Your task to perform on an android device: Find coffee shops on Maps Image 0: 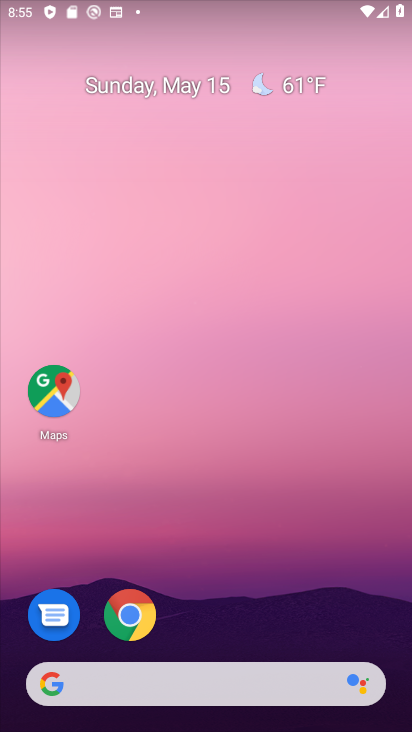
Step 0: drag from (214, 368) to (196, 0)
Your task to perform on an android device: Find coffee shops on Maps Image 1: 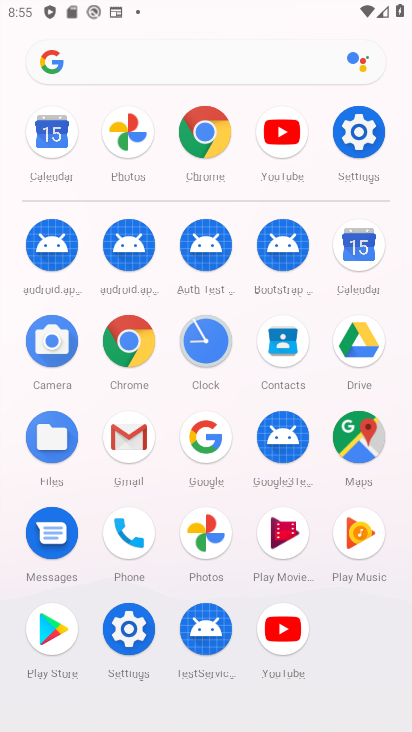
Step 1: click (359, 430)
Your task to perform on an android device: Find coffee shops on Maps Image 2: 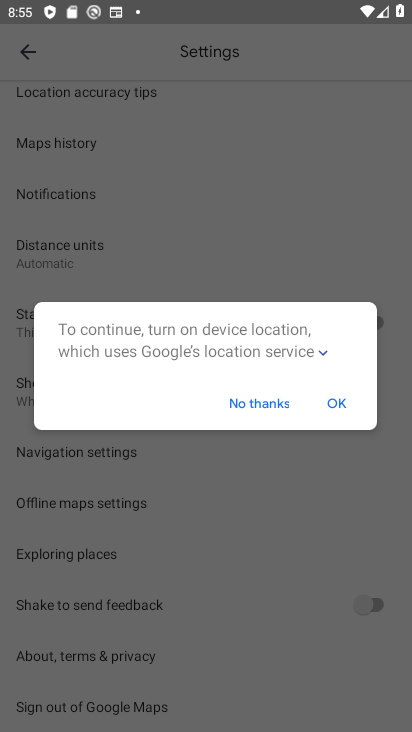
Step 2: click (31, 38)
Your task to perform on an android device: Find coffee shops on Maps Image 3: 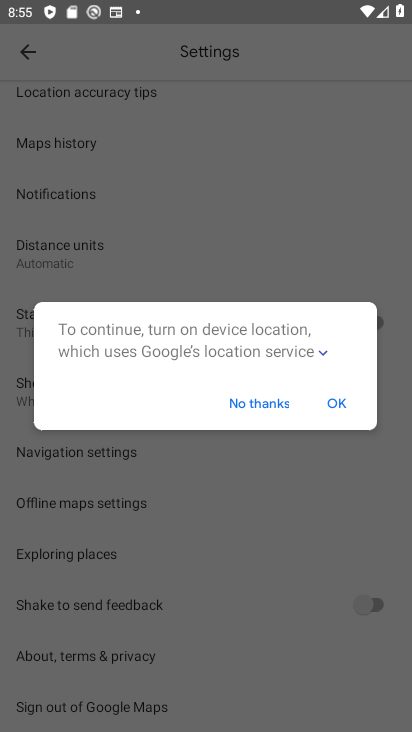
Step 3: click (333, 396)
Your task to perform on an android device: Find coffee shops on Maps Image 4: 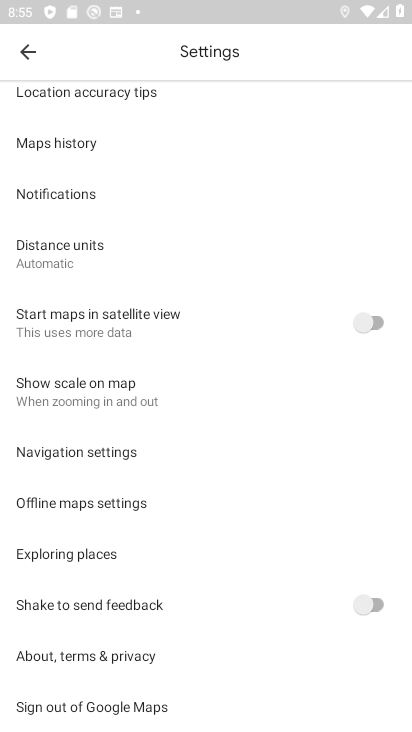
Step 4: click (24, 53)
Your task to perform on an android device: Find coffee shops on Maps Image 5: 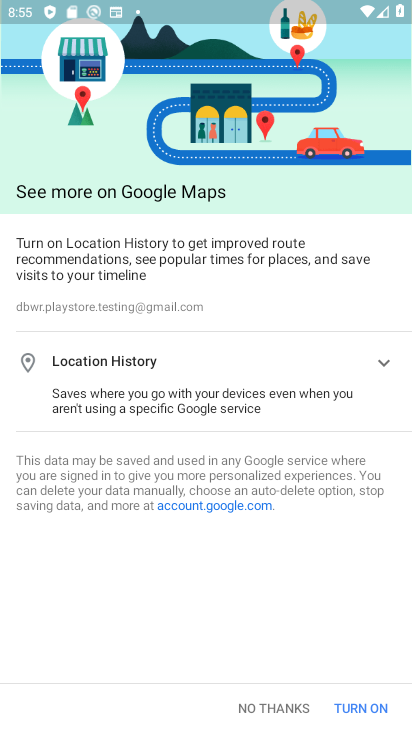
Step 5: click (358, 710)
Your task to perform on an android device: Find coffee shops on Maps Image 6: 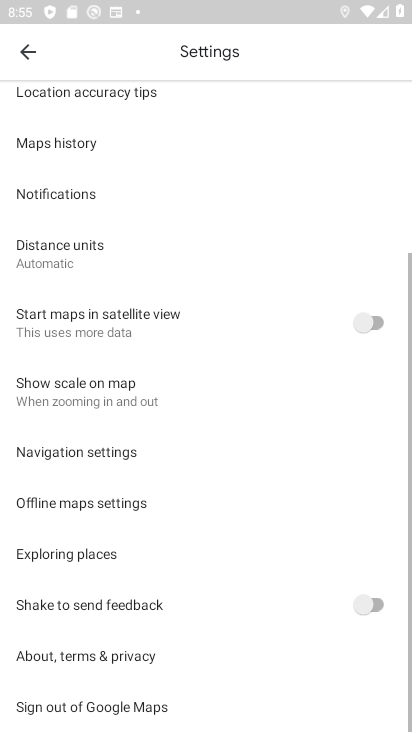
Step 6: click (27, 58)
Your task to perform on an android device: Find coffee shops on Maps Image 7: 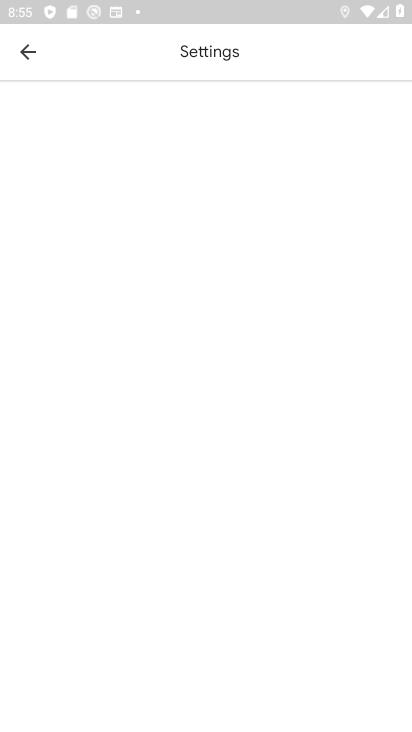
Step 7: click (27, 58)
Your task to perform on an android device: Find coffee shops on Maps Image 8: 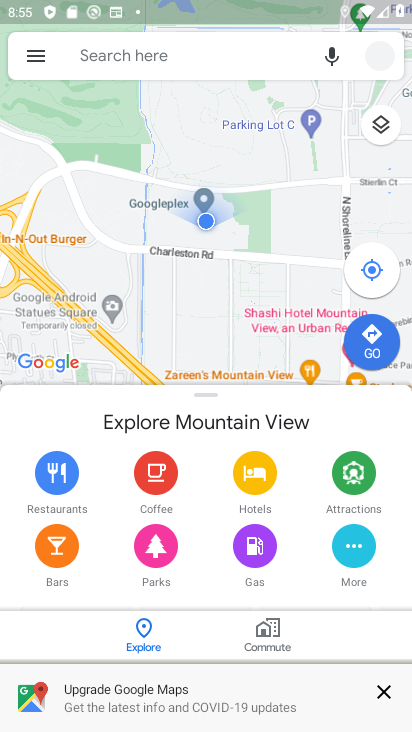
Step 8: click (185, 53)
Your task to perform on an android device: Find coffee shops on Maps Image 9: 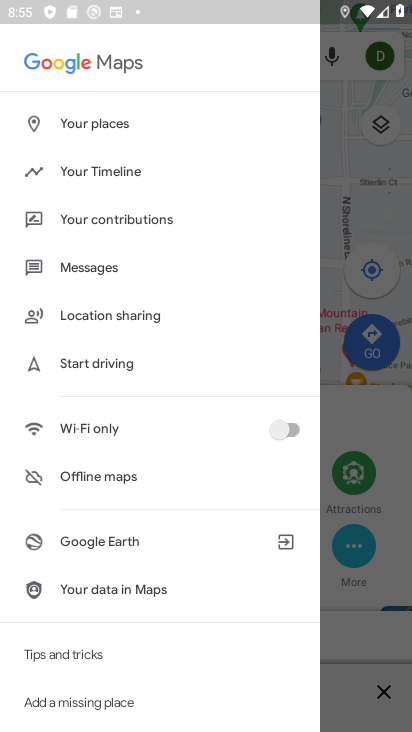
Step 9: click (341, 124)
Your task to perform on an android device: Find coffee shops on Maps Image 10: 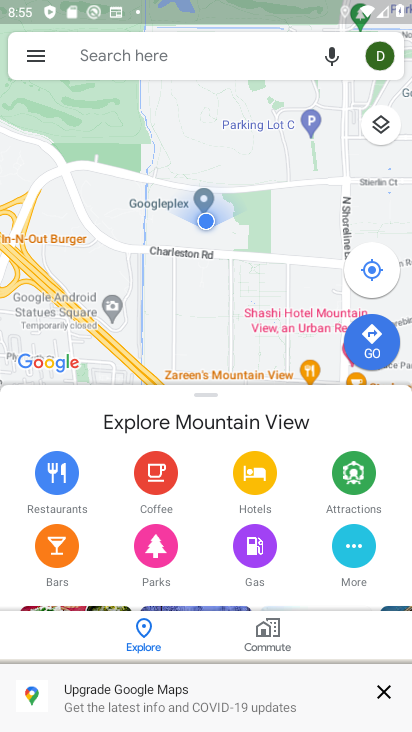
Step 10: click (198, 53)
Your task to perform on an android device: Find coffee shops on Maps Image 11: 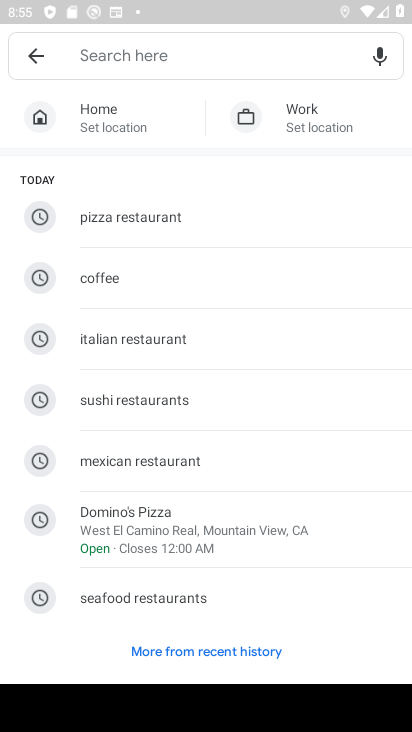
Step 11: click (154, 283)
Your task to perform on an android device: Find coffee shops on Maps Image 12: 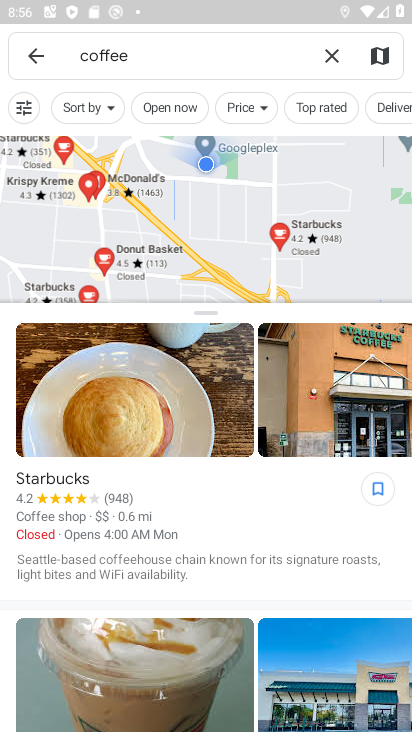
Step 12: task complete